Your task to perform on an android device: turn off priority inbox in the gmail app Image 0: 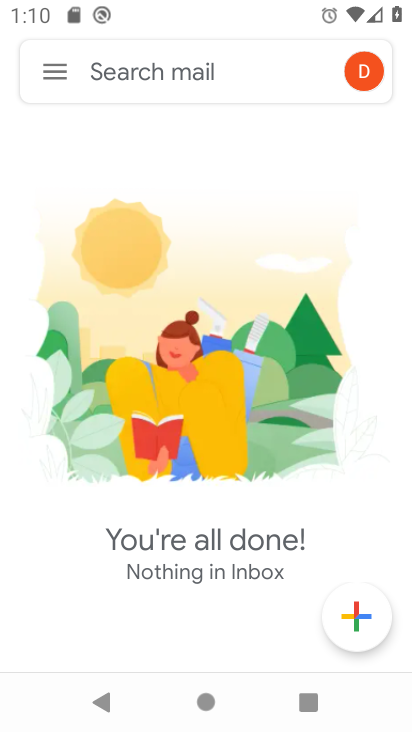
Step 0: click (58, 69)
Your task to perform on an android device: turn off priority inbox in the gmail app Image 1: 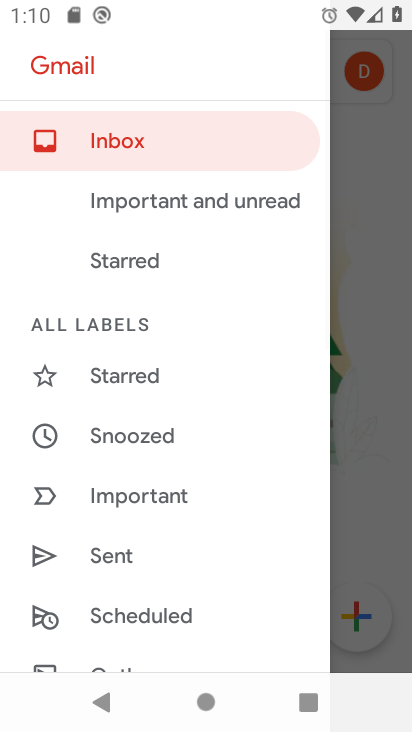
Step 1: drag from (215, 477) to (201, 1)
Your task to perform on an android device: turn off priority inbox in the gmail app Image 2: 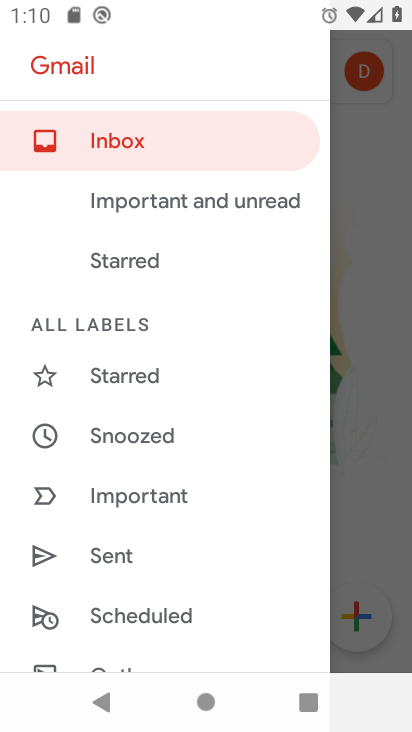
Step 2: drag from (146, 622) to (204, 9)
Your task to perform on an android device: turn off priority inbox in the gmail app Image 3: 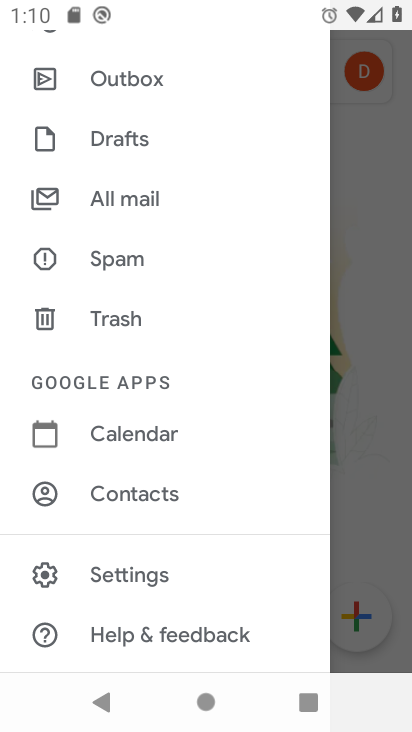
Step 3: click (147, 575)
Your task to perform on an android device: turn off priority inbox in the gmail app Image 4: 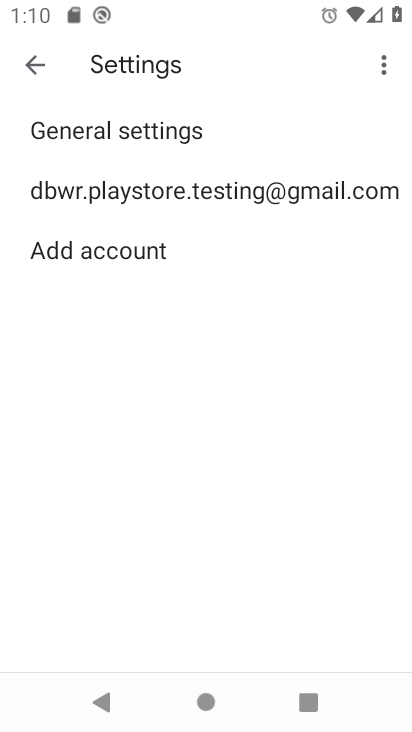
Step 4: click (129, 195)
Your task to perform on an android device: turn off priority inbox in the gmail app Image 5: 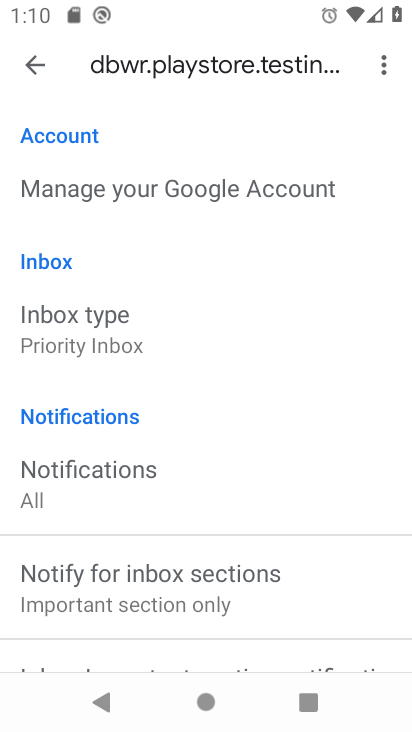
Step 5: click (126, 343)
Your task to perform on an android device: turn off priority inbox in the gmail app Image 6: 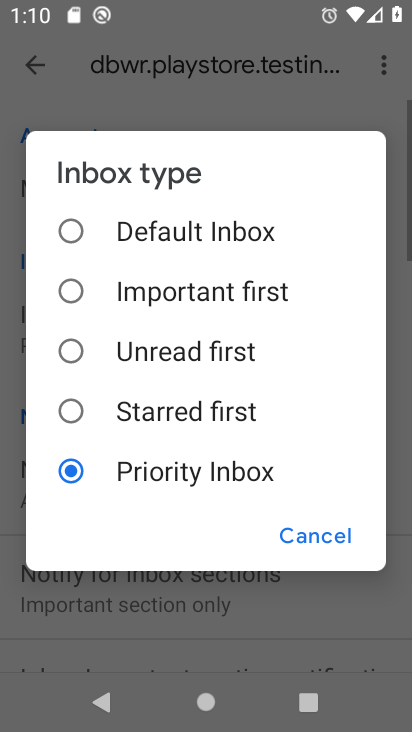
Step 6: click (203, 246)
Your task to perform on an android device: turn off priority inbox in the gmail app Image 7: 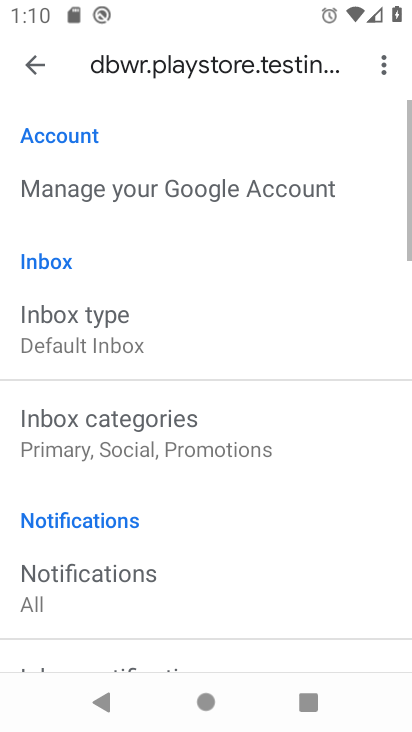
Step 7: task complete